Your task to perform on an android device: What's the weather? Image 0: 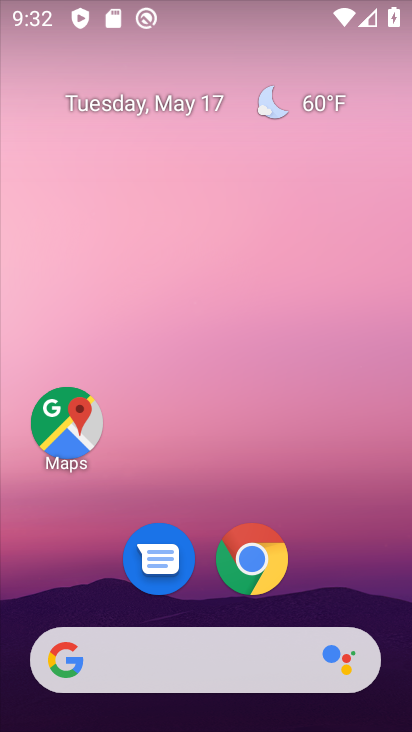
Step 0: click (324, 108)
Your task to perform on an android device: What's the weather? Image 1: 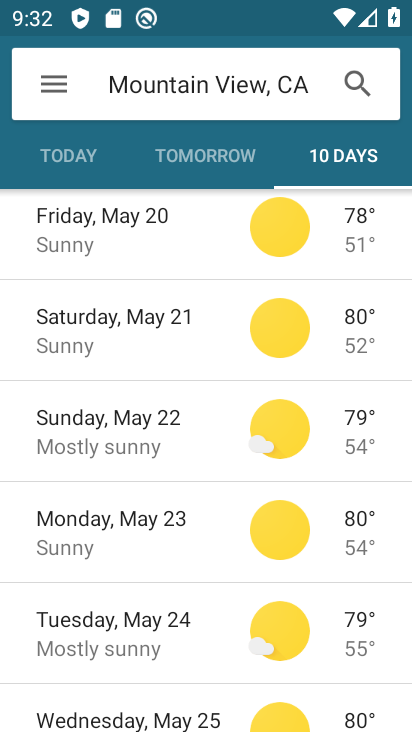
Step 1: click (91, 148)
Your task to perform on an android device: What's the weather? Image 2: 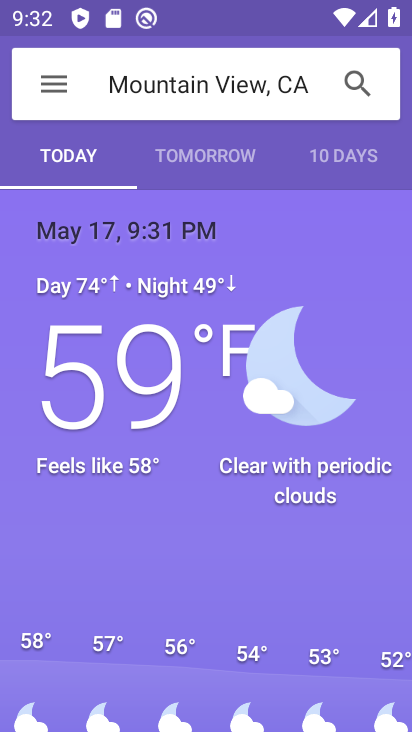
Step 2: task complete